Your task to perform on an android device: search for starred emails in the gmail app Image 0: 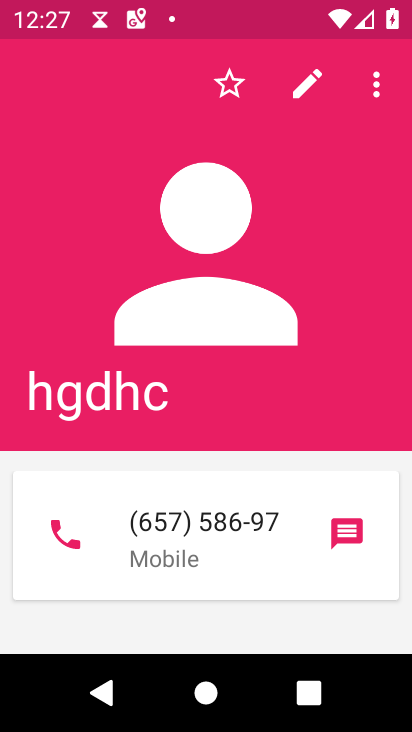
Step 0: press home button
Your task to perform on an android device: search for starred emails in the gmail app Image 1: 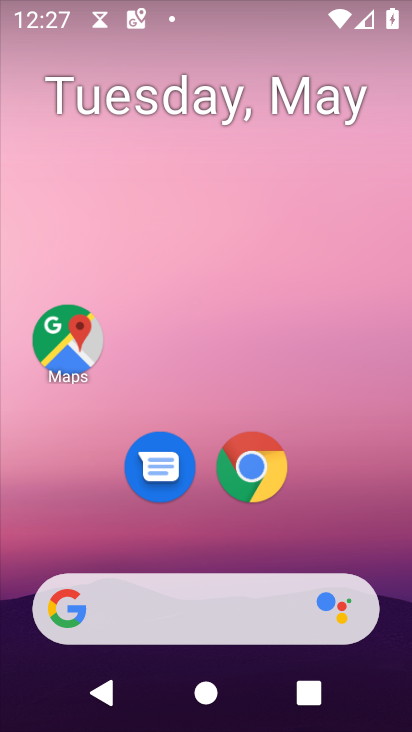
Step 1: drag from (338, 513) to (288, 38)
Your task to perform on an android device: search for starred emails in the gmail app Image 2: 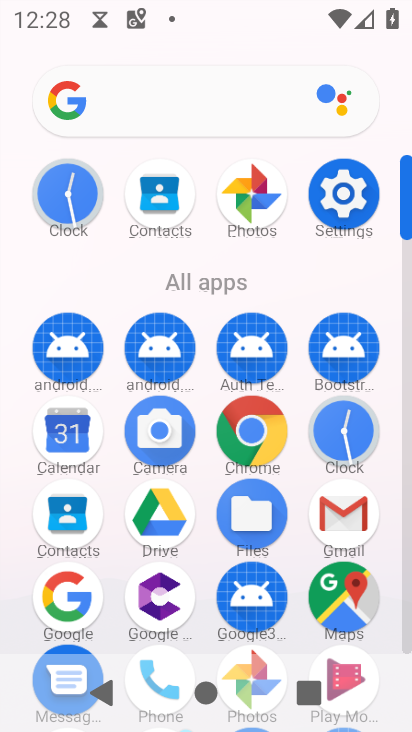
Step 2: click (352, 520)
Your task to perform on an android device: search for starred emails in the gmail app Image 3: 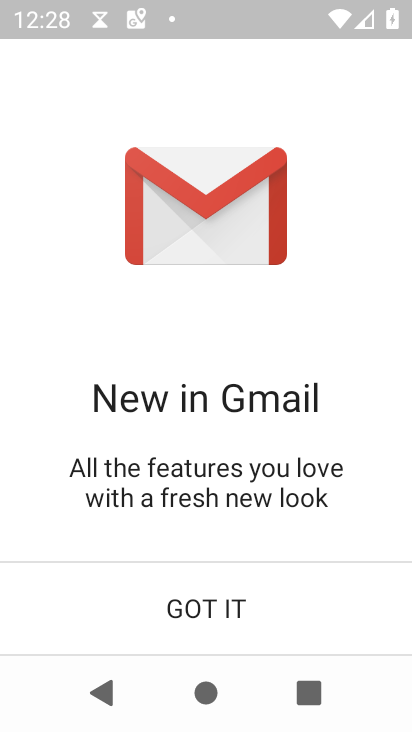
Step 3: click (207, 616)
Your task to perform on an android device: search for starred emails in the gmail app Image 4: 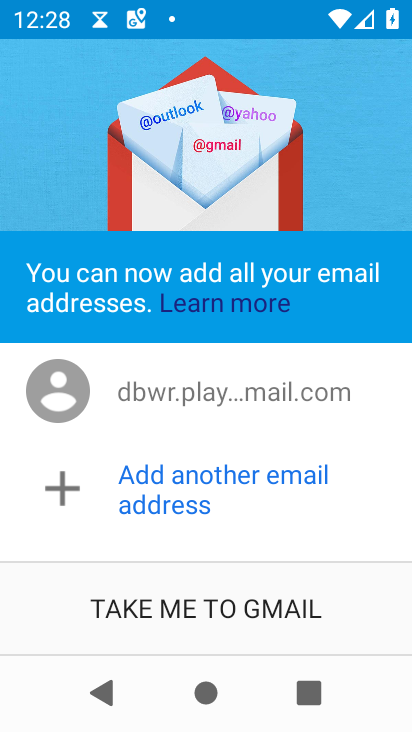
Step 4: click (226, 620)
Your task to perform on an android device: search for starred emails in the gmail app Image 5: 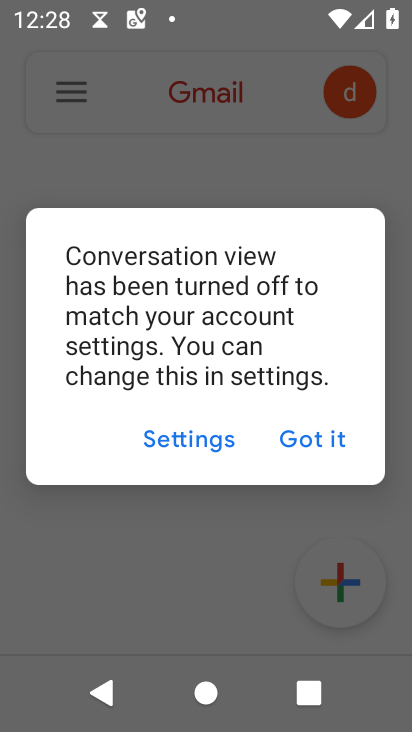
Step 5: click (310, 439)
Your task to perform on an android device: search for starred emails in the gmail app Image 6: 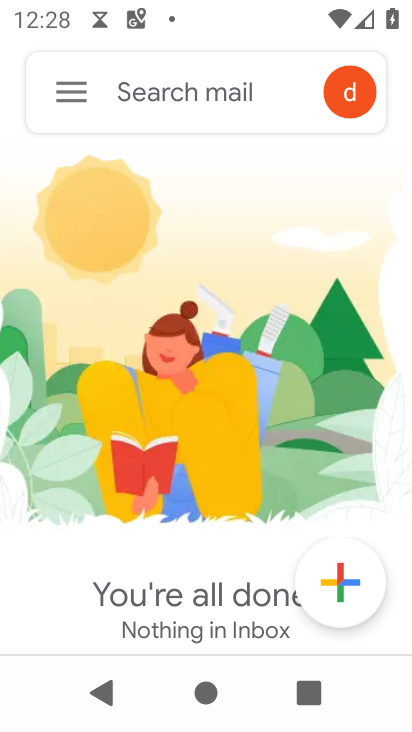
Step 6: click (79, 89)
Your task to perform on an android device: search for starred emails in the gmail app Image 7: 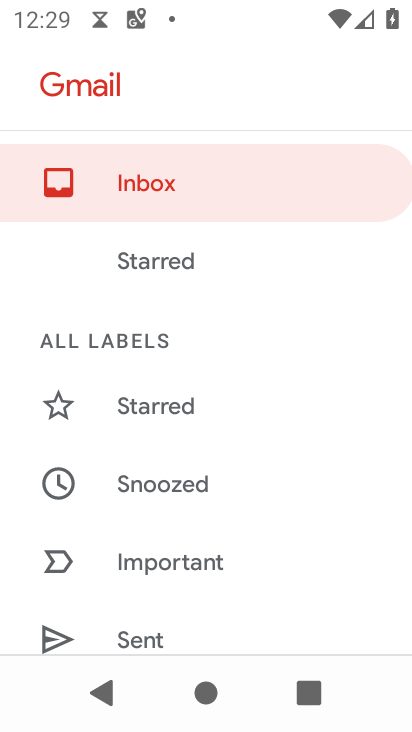
Step 7: click (191, 412)
Your task to perform on an android device: search for starred emails in the gmail app Image 8: 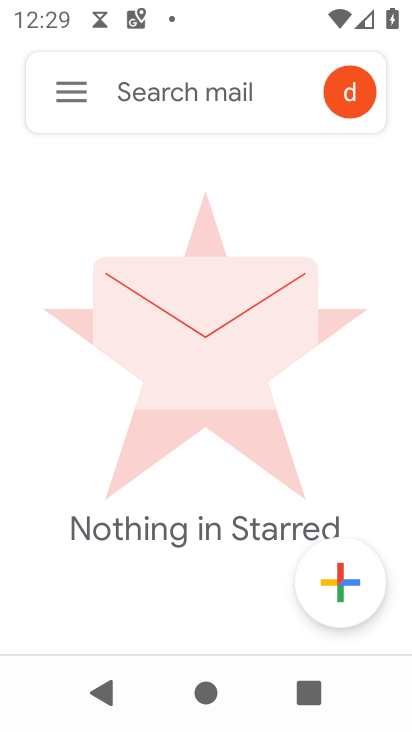
Step 8: task complete